Your task to perform on an android device: allow cookies in the chrome app Image 0: 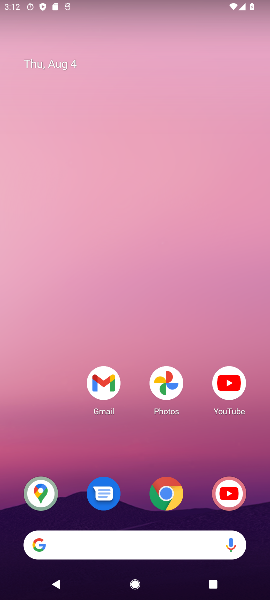
Step 0: click (165, 497)
Your task to perform on an android device: allow cookies in the chrome app Image 1: 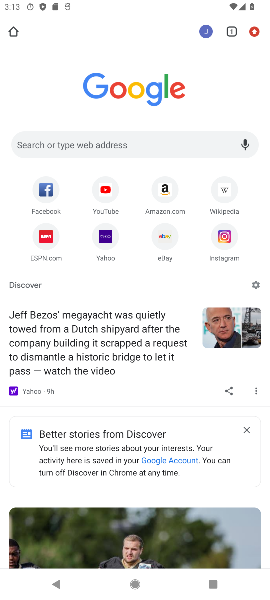
Step 1: click (251, 31)
Your task to perform on an android device: allow cookies in the chrome app Image 2: 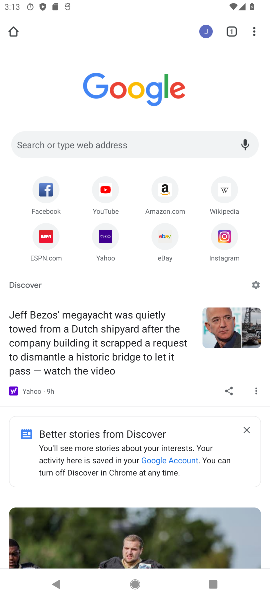
Step 2: click (255, 27)
Your task to perform on an android device: allow cookies in the chrome app Image 3: 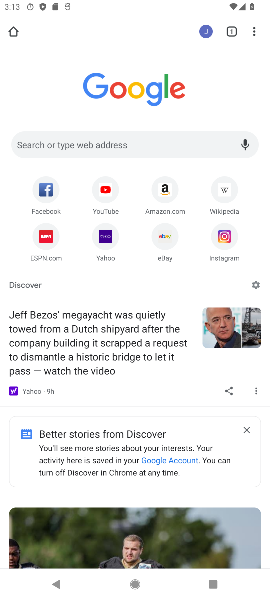
Step 3: click (257, 23)
Your task to perform on an android device: allow cookies in the chrome app Image 4: 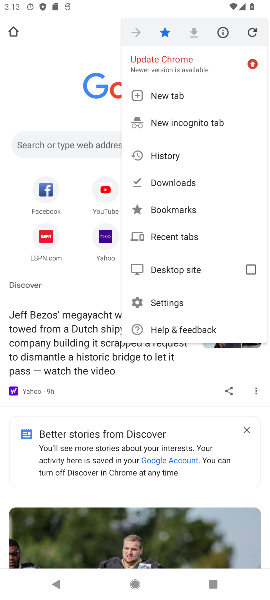
Step 4: click (149, 301)
Your task to perform on an android device: allow cookies in the chrome app Image 5: 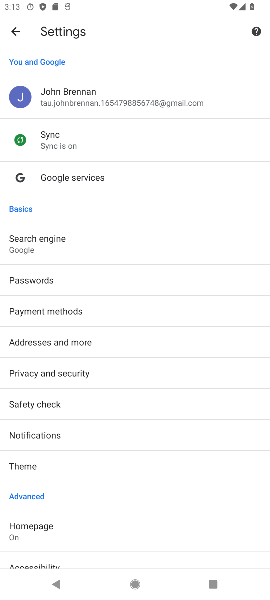
Step 5: drag from (116, 515) to (149, 243)
Your task to perform on an android device: allow cookies in the chrome app Image 6: 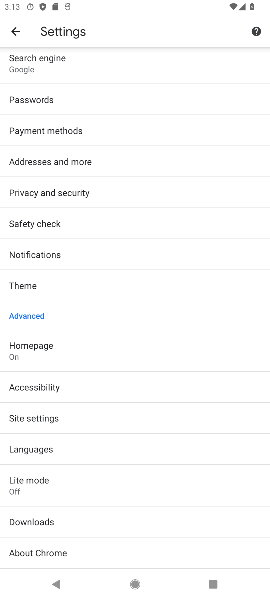
Step 6: drag from (133, 482) to (148, 226)
Your task to perform on an android device: allow cookies in the chrome app Image 7: 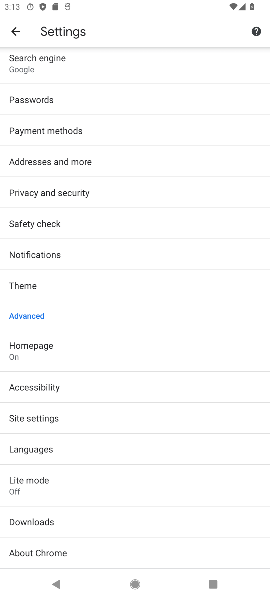
Step 7: click (29, 414)
Your task to perform on an android device: allow cookies in the chrome app Image 8: 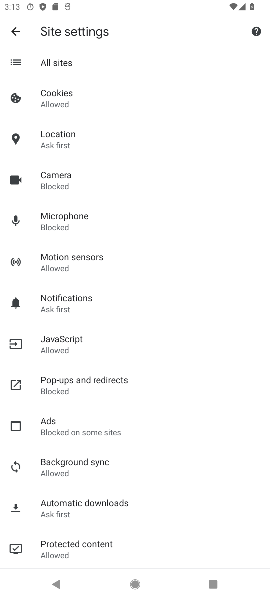
Step 8: click (73, 106)
Your task to perform on an android device: allow cookies in the chrome app Image 9: 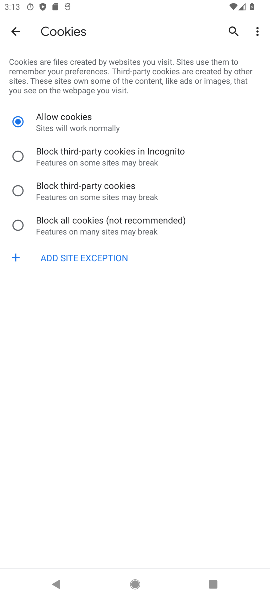
Step 9: task complete